Your task to perform on an android device: Do I have any events today? Image 0: 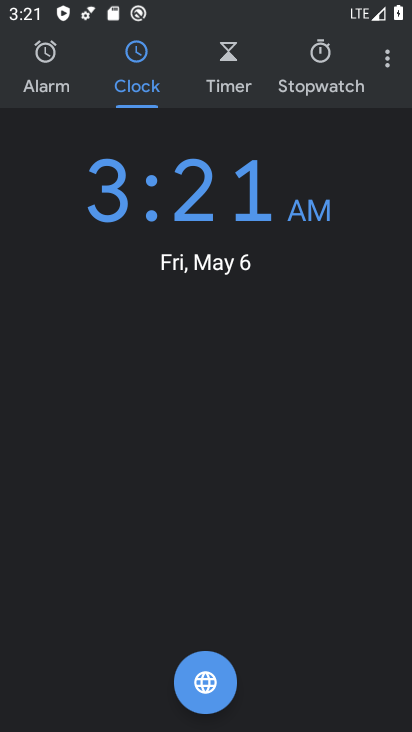
Step 0: press home button
Your task to perform on an android device: Do I have any events today? Image 1: 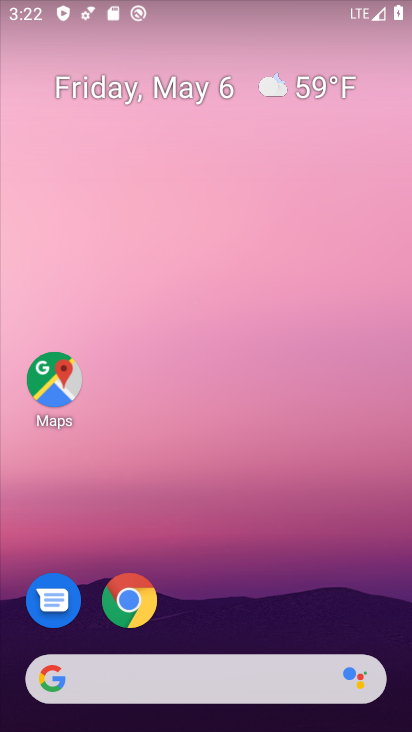
Step 1: drag from (234, 614) to (337, 95)
Your task to perform on an android device: Do I have any events today? Image 2: 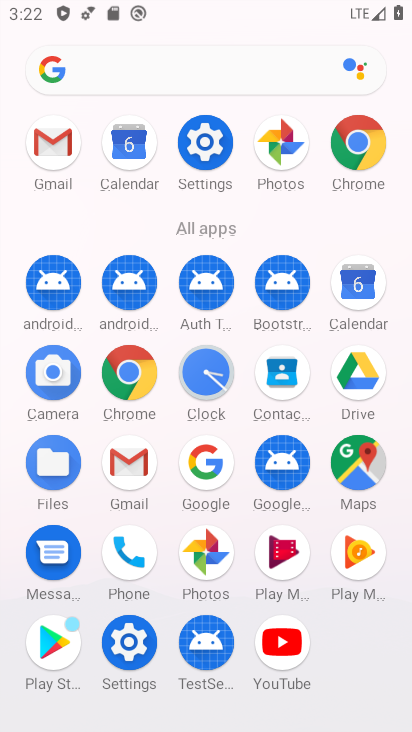
Step 2: click (352, 283)
Your task to perform on an android device: Do I have any events today? Image 3: 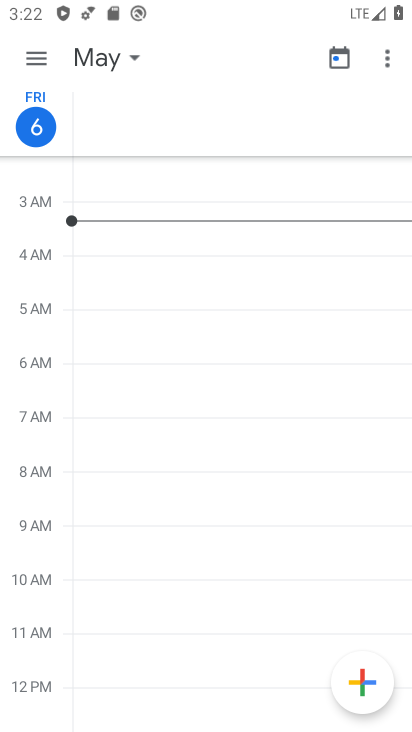
Step 3: click (39, 54)
Your task to perform on an android device: Do I have any events today? Image 4: 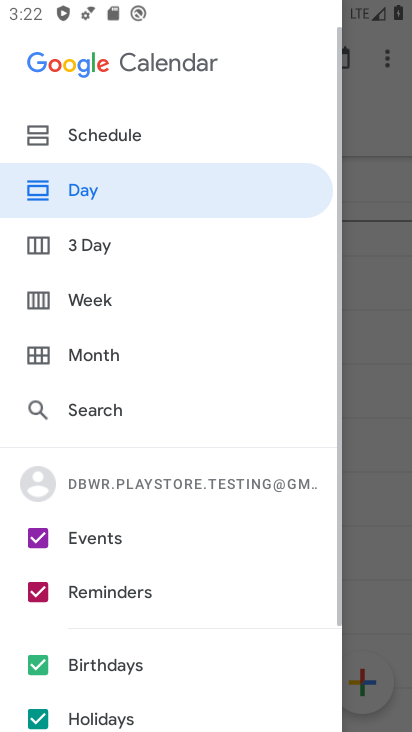
Step 4: drag from (137, 563) to (154, 319)
Your task to perform on an android device: Do I have any events today? Image 5: 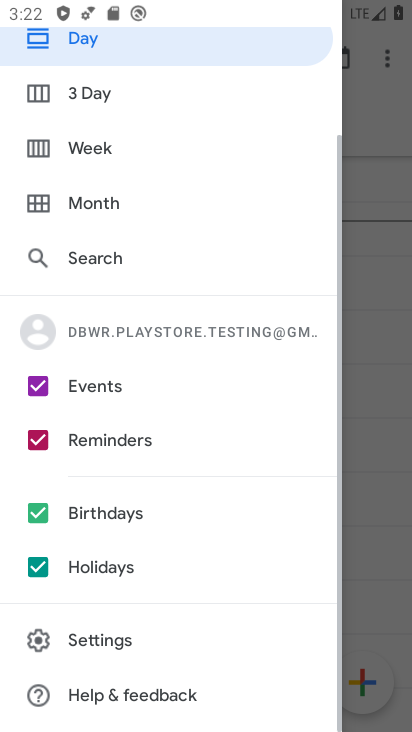
Step 5: click (105, 423)
Your task to perform on an android device: Do I have any events today? Image 6: 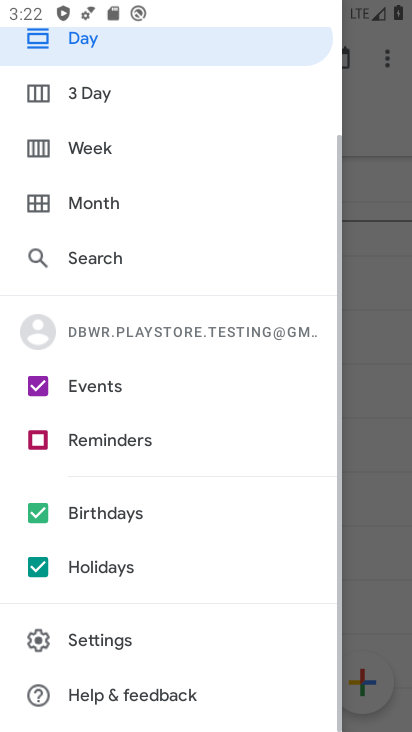
Step 6: click (78, 515)
Your task to perform on an android device: Do I have any events today? Image 7: 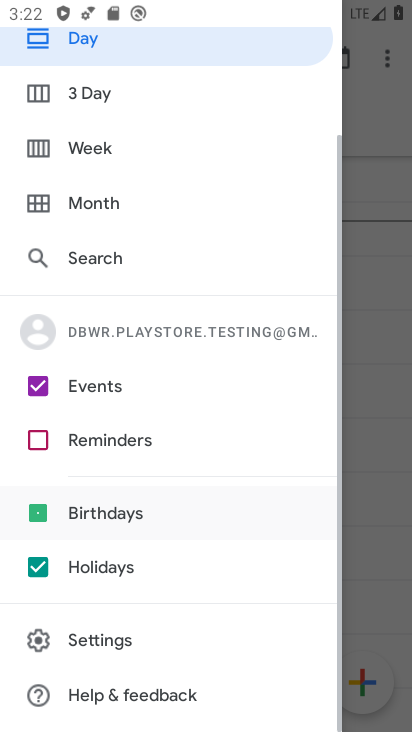
Step 7: click (70, 568)
Your task to perform on an android device: Do I have any events today? Image 8: 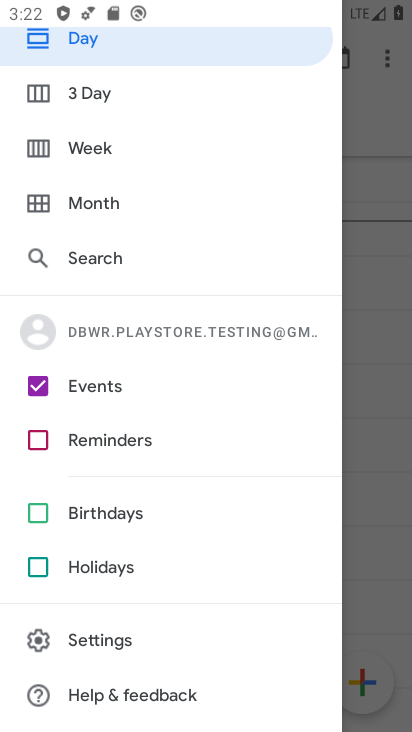
Step 8: click (104, 98)
Your task to perform on an android device: Do I have any events today? Image 9: 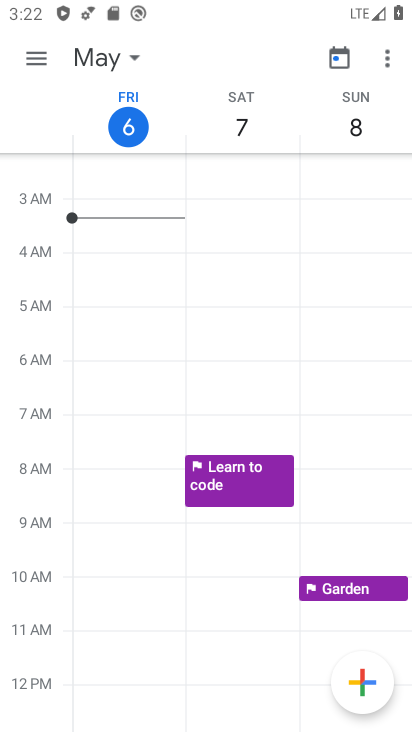
Step 9: task complete